Your task to perform on an android device: add a contact in the contacts app Image 0: 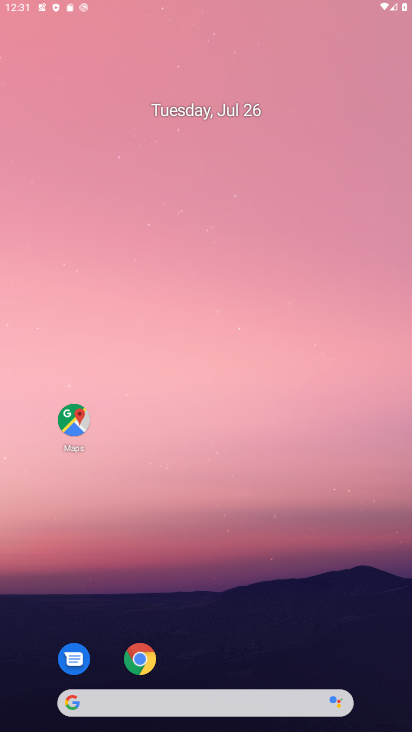
Step 0: click (202, 257)
Your task to perform on an android device: add a contact in the contacts app Image 1: 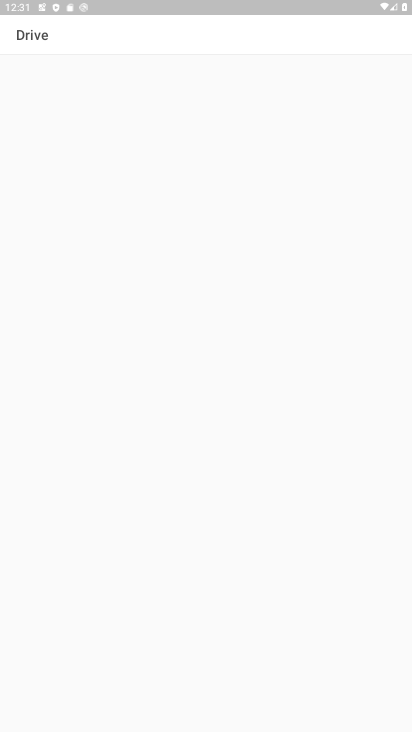
Step 1: press home button
Your task to perform on an android device: add a contact in the contacts app Image 2: 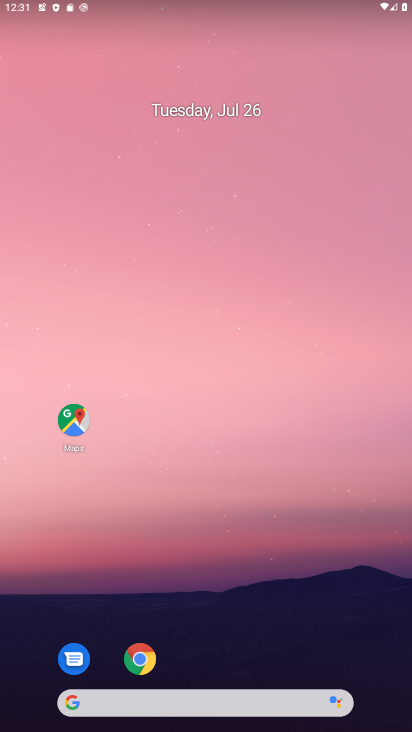
Step 2: drag from (220, 678) to (228, 306)
Your task to perform on an android device: add a contact in the contacts app Image 3: 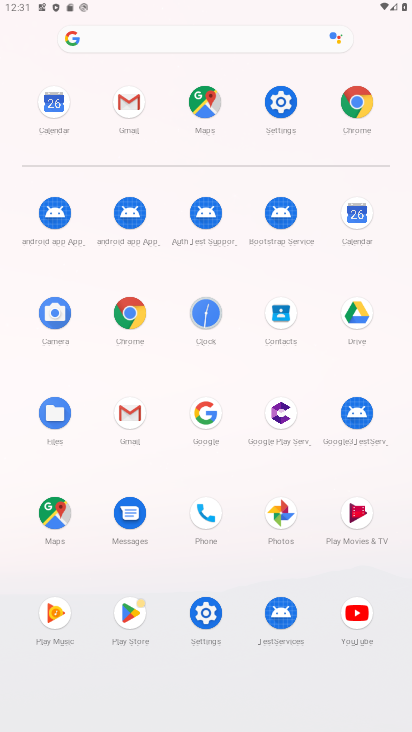
Step 3: click (282, 327)
Your task to perform on an android device: add a contact in the contacts app Image 4: 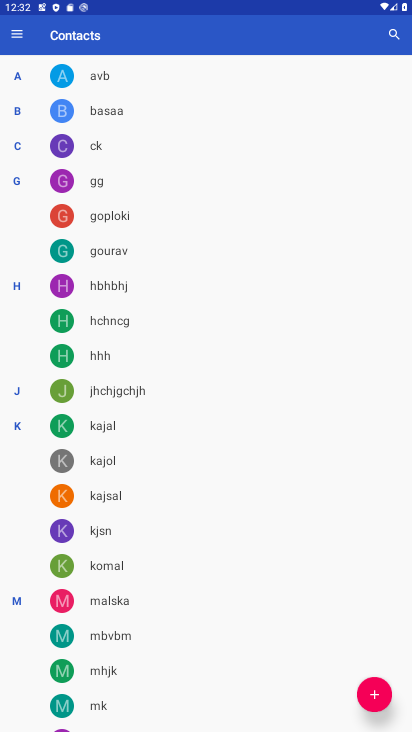
Step 4: click (373, 691)
Your task to perform on an android device: add a contact in the contacts app Image 5: 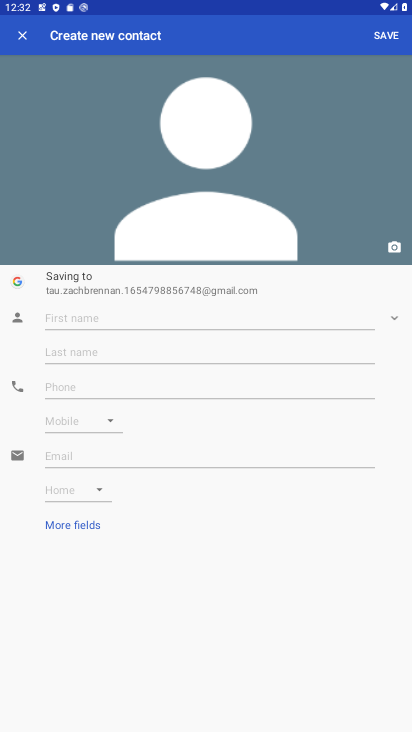
Step 5: click (121, 309)
Your task to perform on an android device: add a contact in the contacts app Image 6: 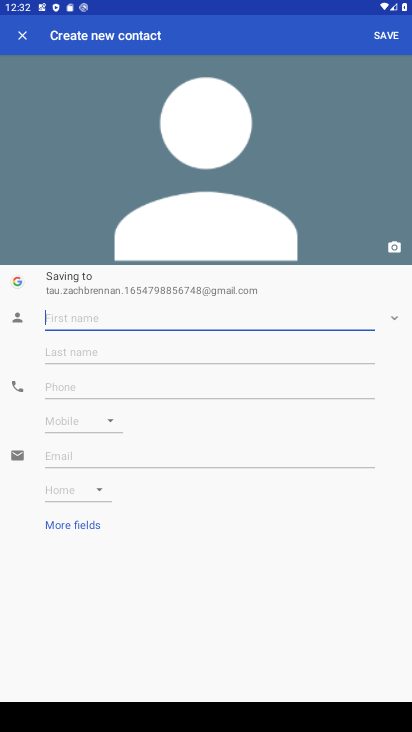
Step 6: type "sxxxsx"
Your task to perform on an android device: add a contact in the contacts app Image 7: 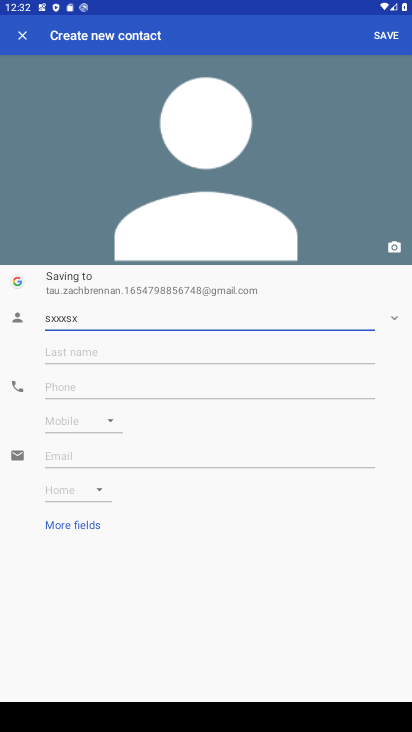
Step 7: click (68, 381)
Your task to perform on an android device: add a contact in the contacts app Image 8: 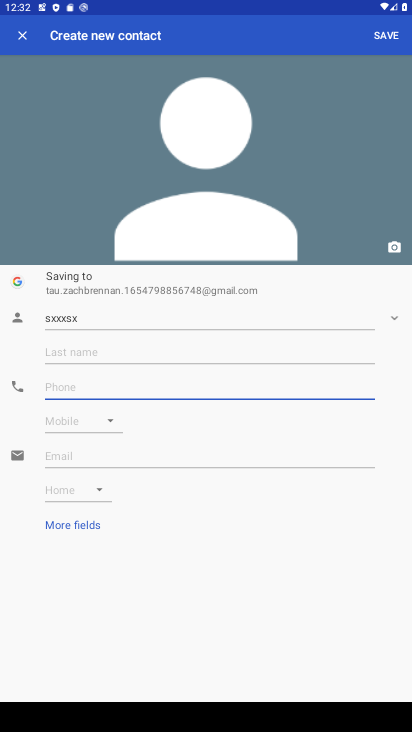
Step 8: type "243432"
Your task to perform on an android device: add a contact in the contacts app Image 9: 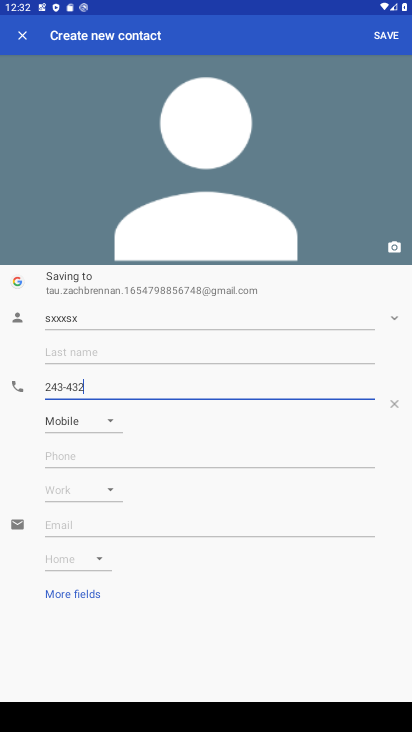
Step 9: click (389, 27)
Your task to perform on an android device: add a contact in the contacts app Image 10: 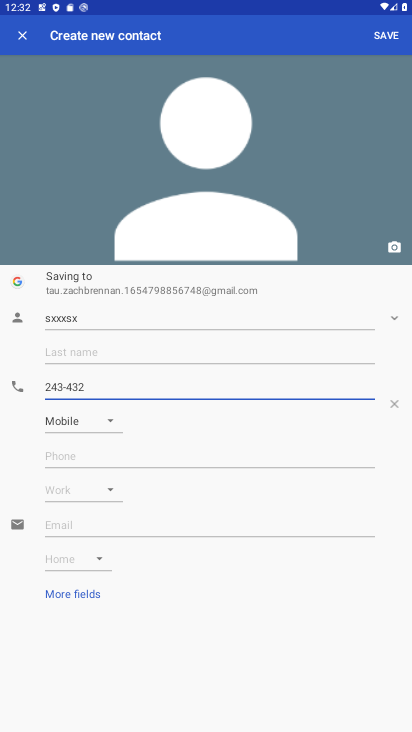
Step 10: task complete